Your task to perform on an android device: Set the phone to "Do not disturb". Image 0: 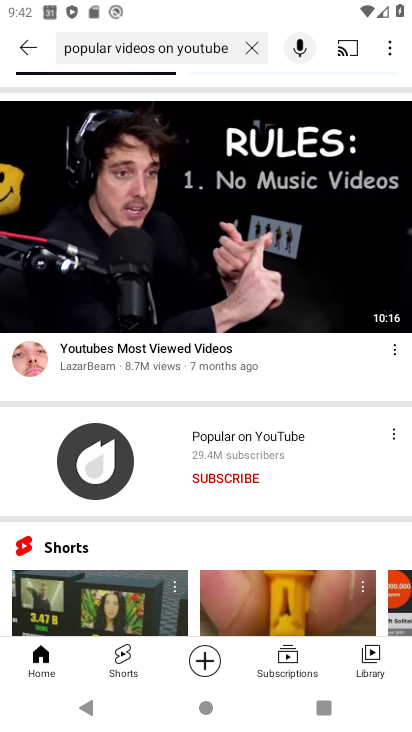
Step 0: press home button
Your task to perform on an android device: Set the phone to "Do not disturb". Image 1: 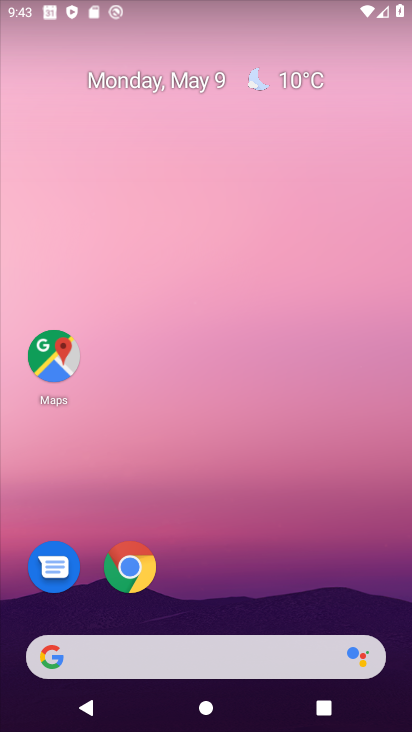
Step 1: drag from (269, 497) to (196, 50)
Your task to perform on an android device: Set the phone to "Do not disturb". Image 2: 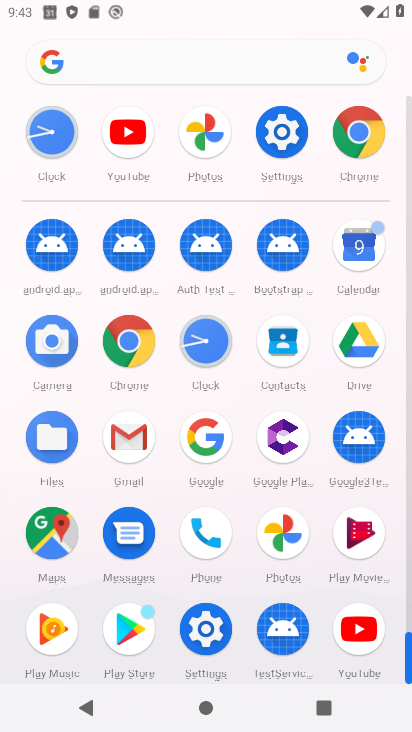
Step 2: click (277, 121)
Your task to perform on an android device: Set the phone to "Do not disturb". Image 3: 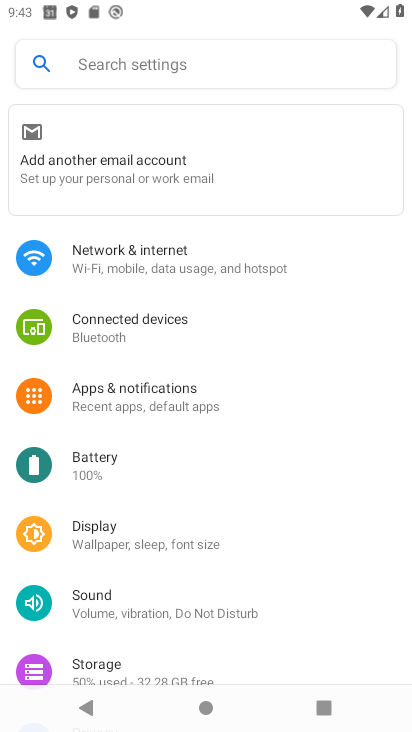
Step 3: click (203, 615)
Your task to perform on an android device: Set the phone to "Do not disturb". Image 4: 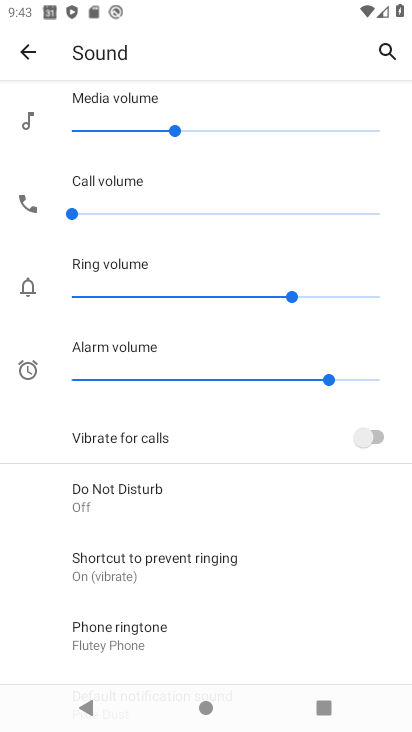
Step 4: click (131, 501)
Your task to perform on an android device: Set the phone to "Do not disturb". Image 5: 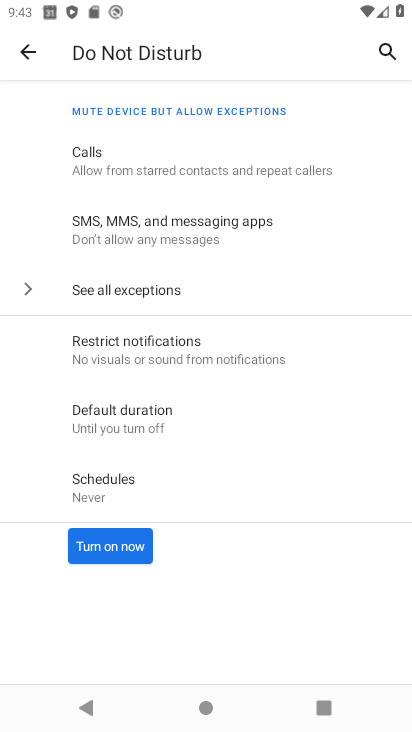
Step 5: click (128, 547)
Your task to perform on an android device: Set the phone to "Do not disturb". Image 6: 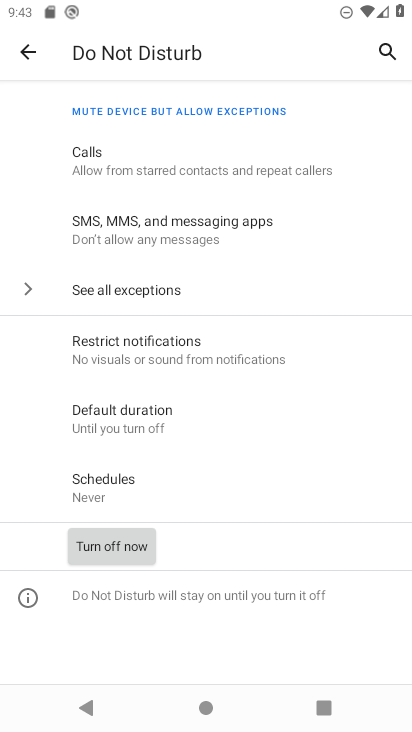
Step 6: task complete